Your task to perform on an android device: turn off improve location accuracy Image 0: 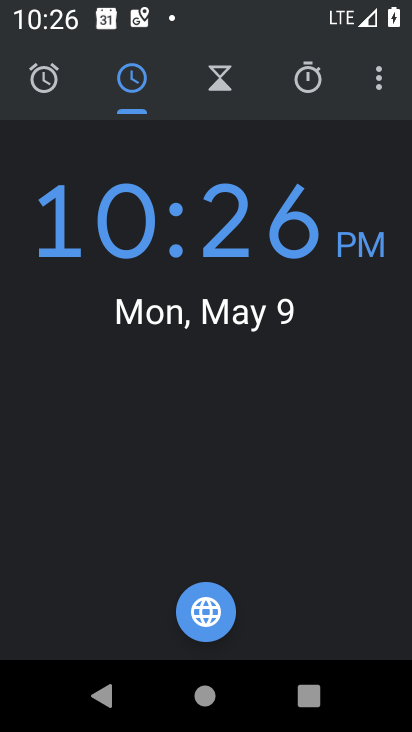
Step 0: press back button
Your task to perform on an android device: turn off improve location accuracy Image 1: 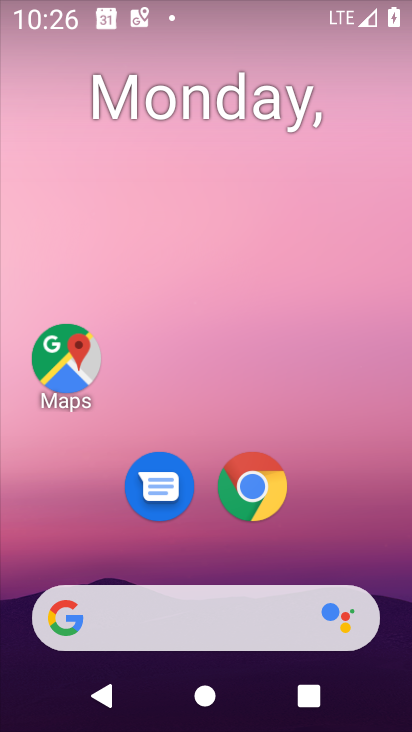
Step 1: drag from (331, 544) to (255, 6)
Your task to perform on an android device: turn off improve location accuracy Image 2: 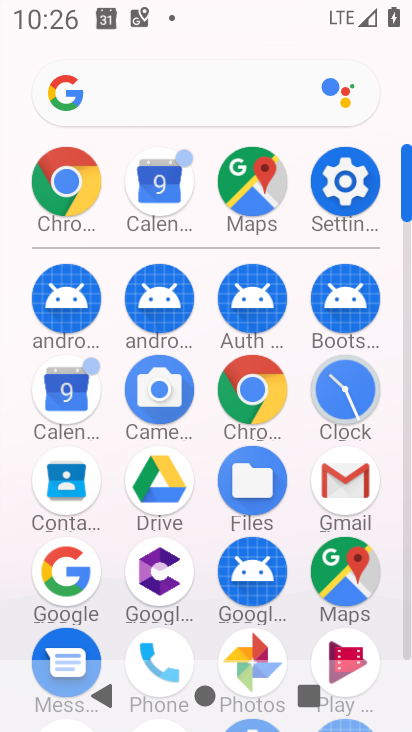
Step 2: click (339, 177)
Your task to perform on an android device: turn off improve location accuracy Image 3: 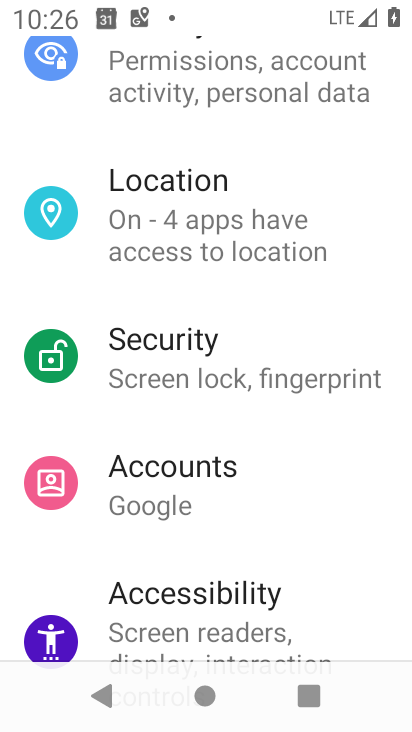
Step 3: click (261, 194)
Your task to perform on an android device: turn off improve location accuracy Image 4: 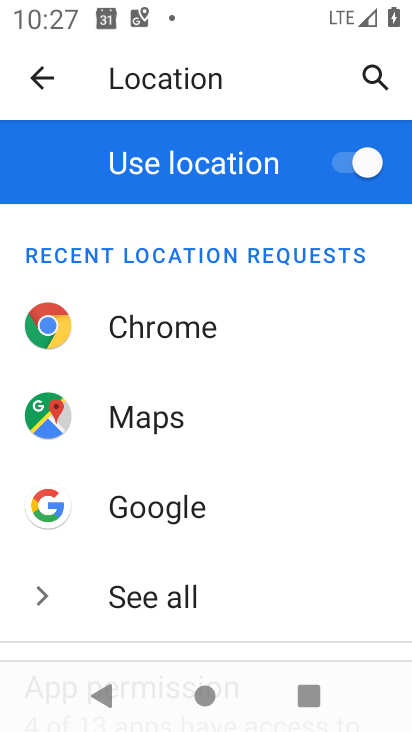
Step 4: click (354, 153)
Your task to perform on an android device: turn off improve location accuracy Image 5: 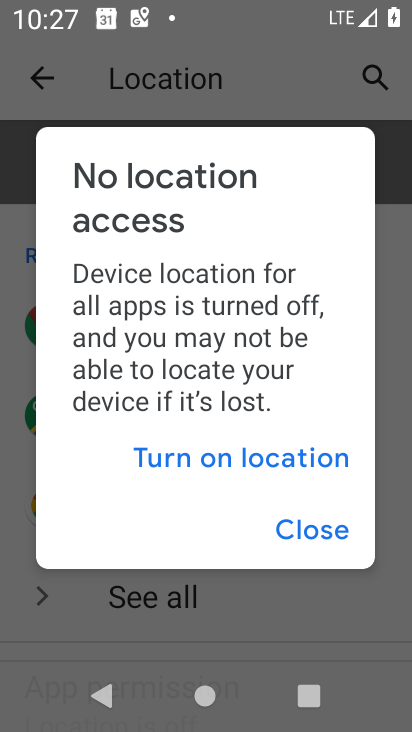
Step 5: click (301, 525)
Your task to perform on an android device: turn off improve location accuracy Image 6: 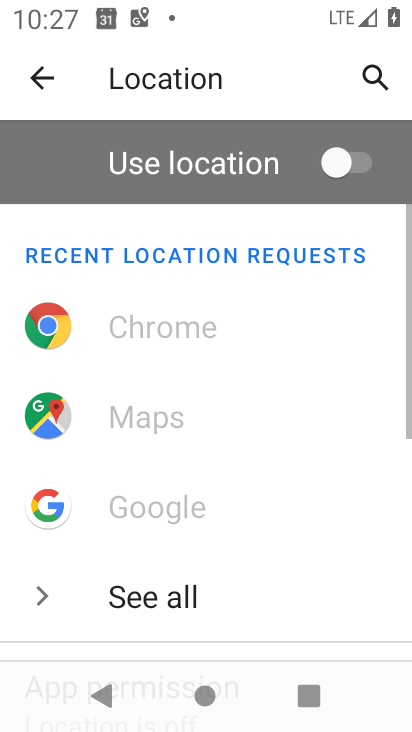
Step 6: click (353, 143)
Your task to perform on an android device: turn off improve location accuracy Image 7: 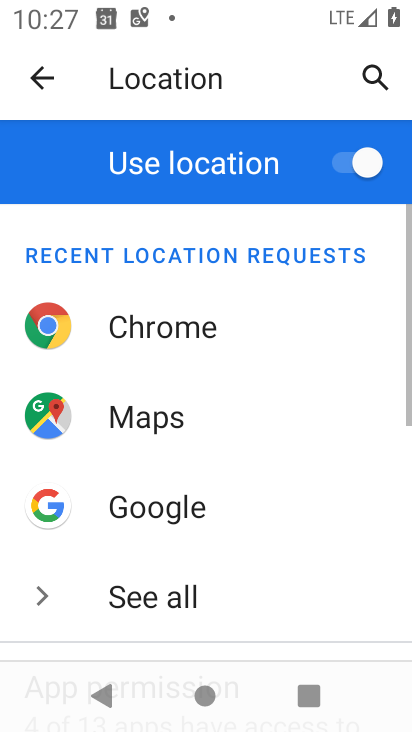
Step 7: drag from (298, 526) to (294, 82)
Your task to perform on an android device: turn off improve location accuracy Image 8: 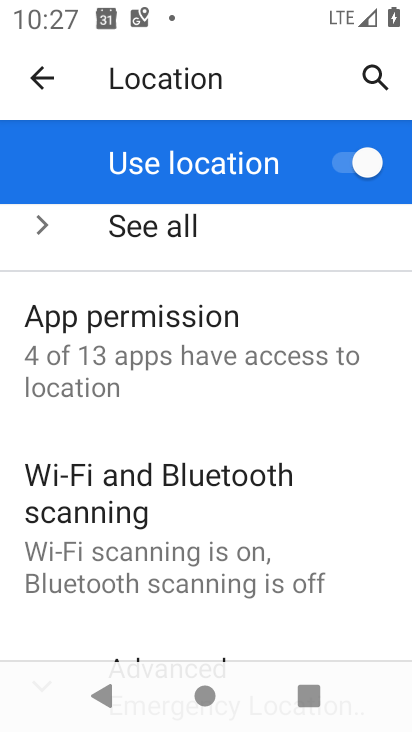
Step 8: drag from (227, 557) to (232, 156)
Your task to perform on an android device: turn off improve location accuracy Image 9: 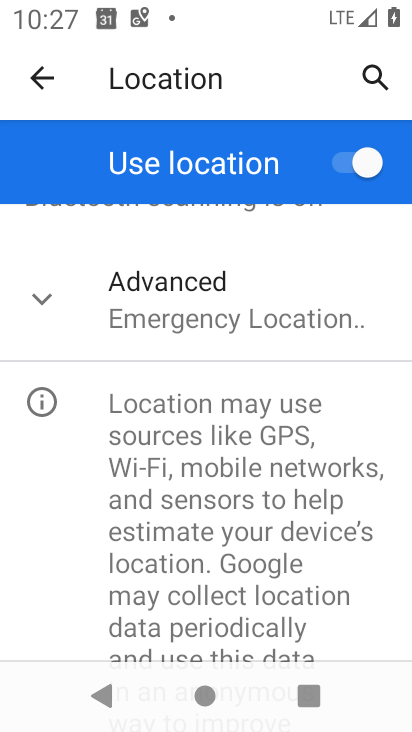
Step 9: click (202, 313)
Your task to perform on an android device: turn off improve location accuracy Image 10: 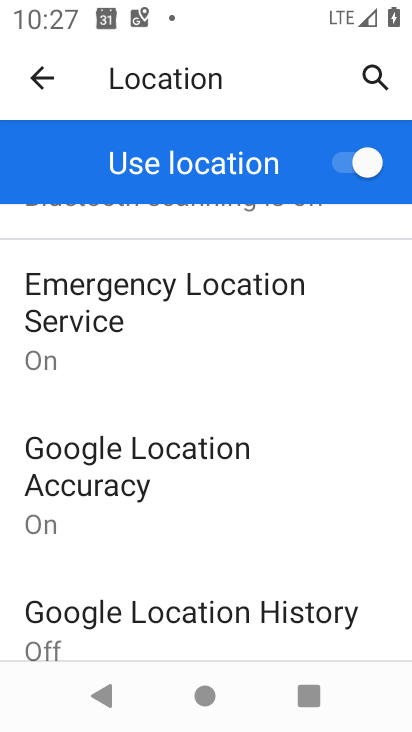
Step 10: click (149, 446)
Your task to perform on an android device: turn off improve location accuracy Image 11: 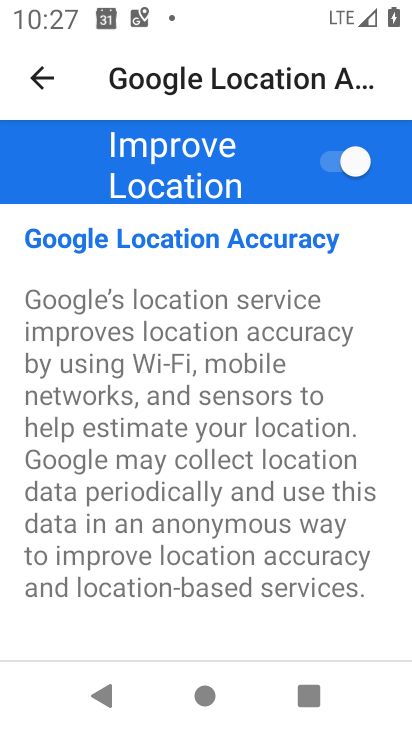
Step 11: click (350, 159)
Your task to perform on an android device: turn off improve location accuracy Image 12: 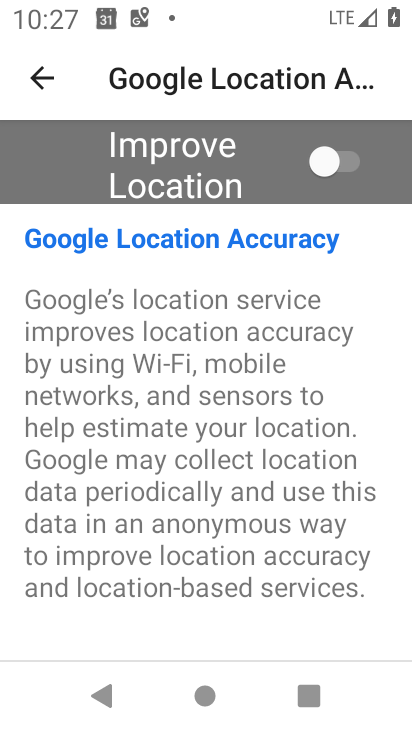
Step 12: task complete